Your task to perform on an android device: open wifi settings Image 0: 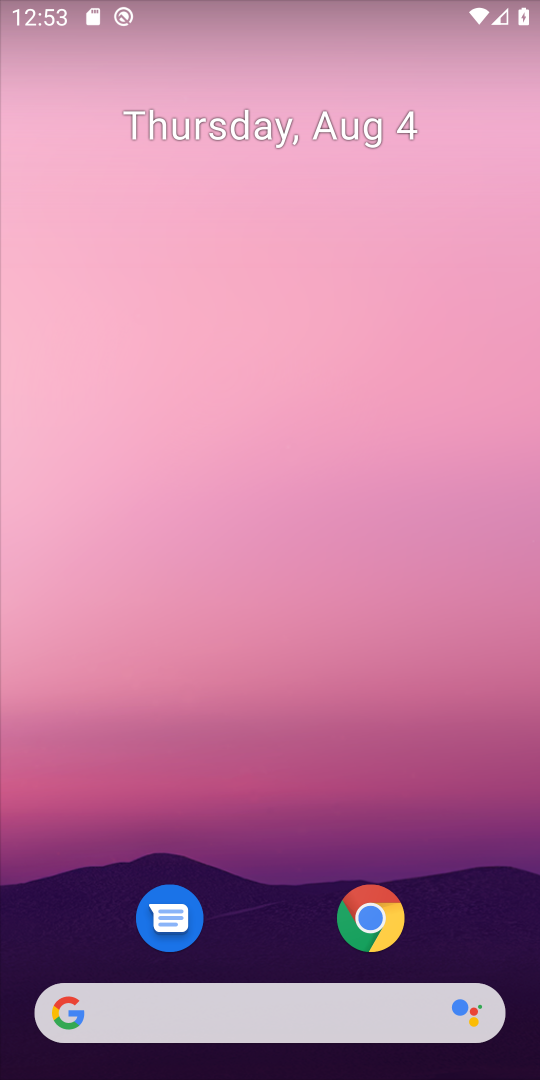
Step 0: drag from (263, 884) to (277, 207)
Your task to perform on an android device: open wifi settings Image 1: 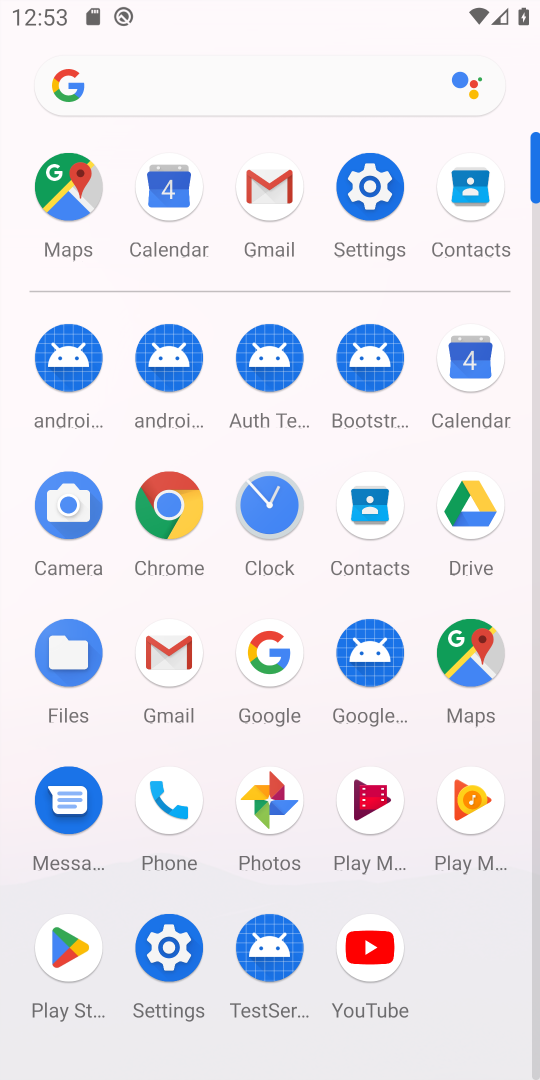
Step 1: click (375, 159)
Your task to perform on an android device: open wifi settings Image 2: 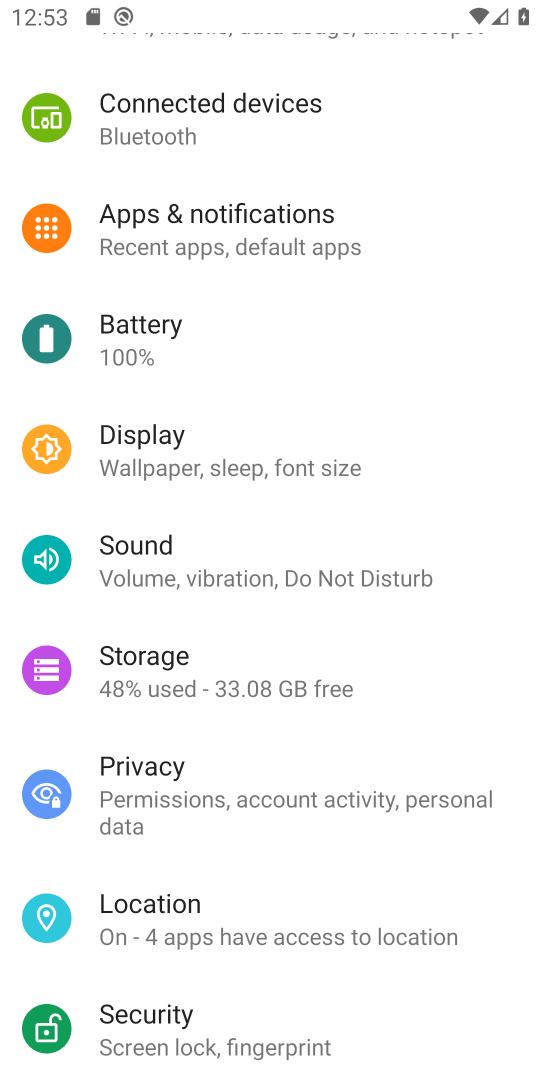
Step 2: drag from (267, 536) to (253, 861)
Your task to perform on an android device: open wifi settings Image 3: 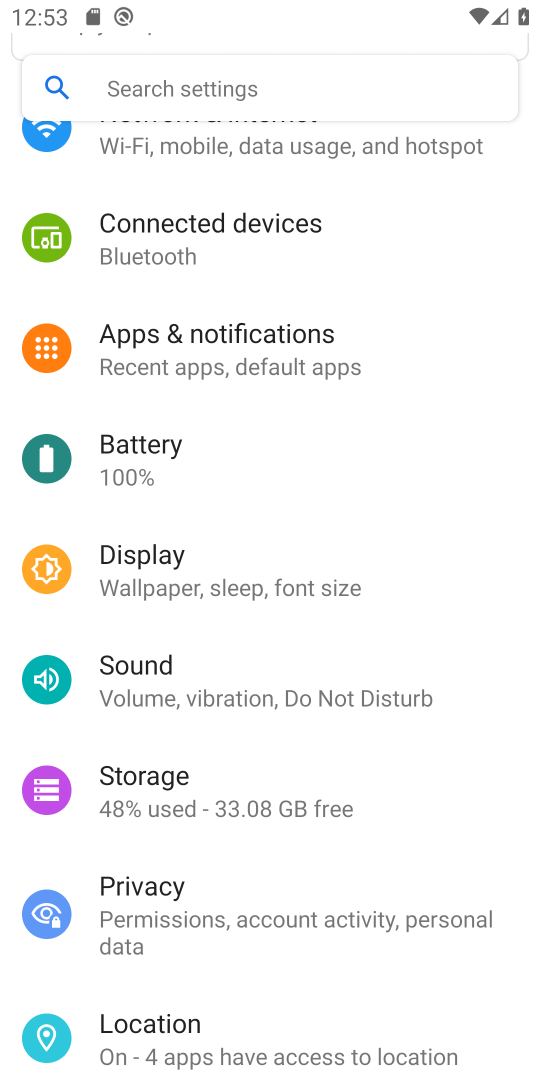
Step 3: drag from (196, 380) to (247, 864)
Your task to perform on an android device: open wifi settings Image 4: 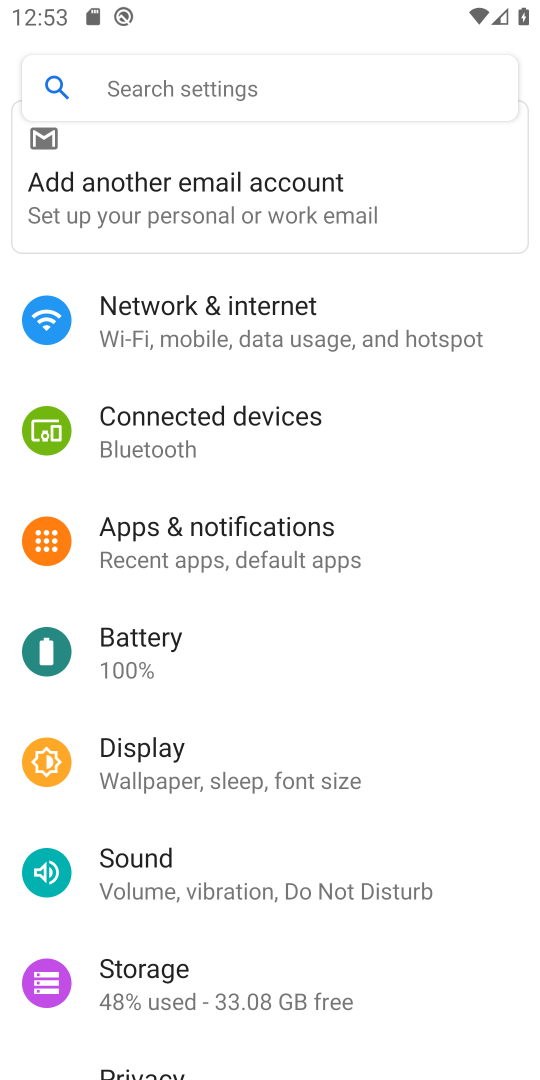
Step 4: click (182, 241)
Your task to perform on an android device: open wifi settings Image 5: 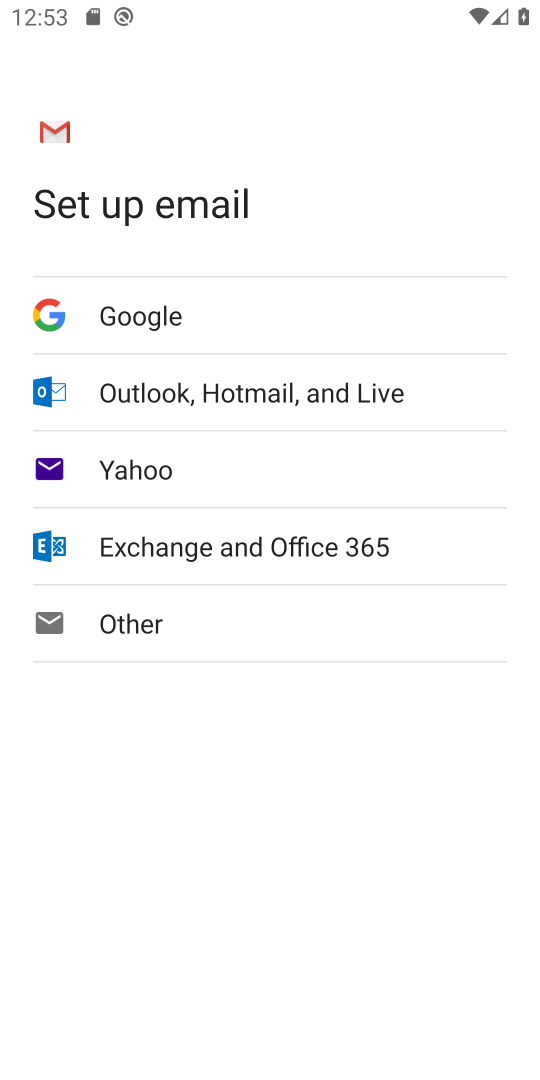
Step 5: press back button
Your task to perform on an android device: open wifi settings Image 6: 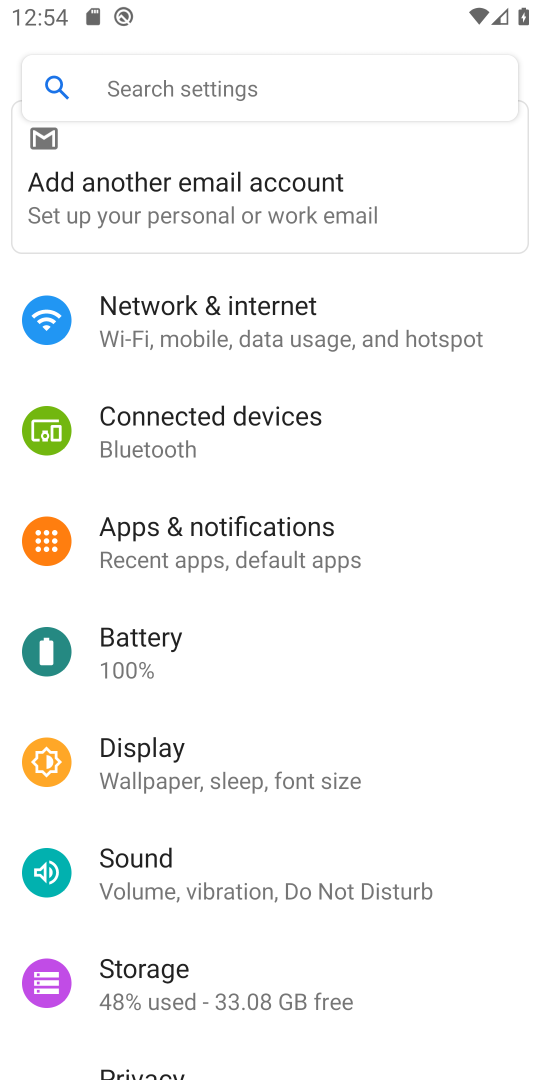
Step 6: click (241, 306)
Your task to perform on an android device: open wifi settings Image 7: 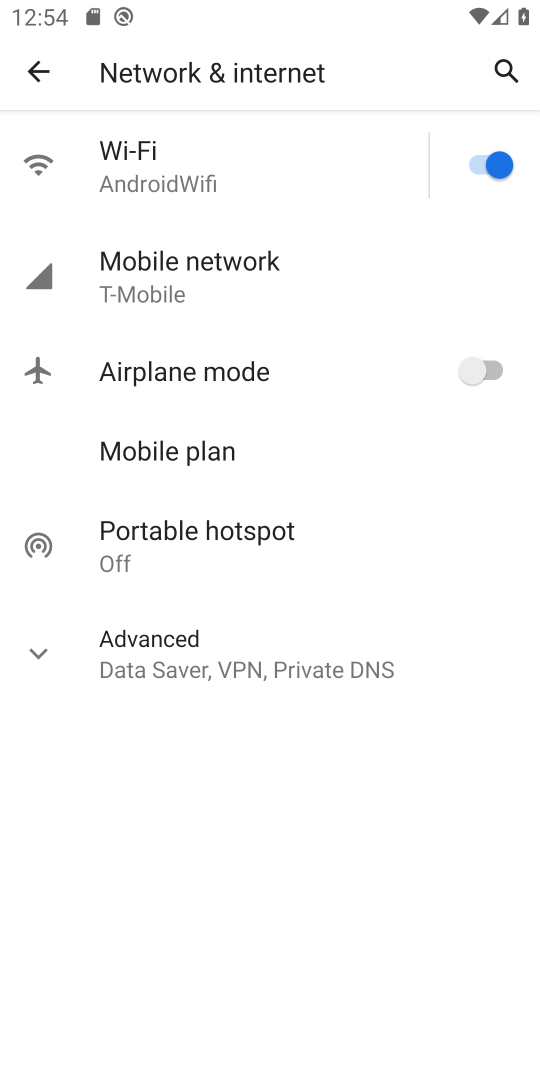
Step 7: click (151, 168)
Your task to perform on an android device: open wifi settings Image 8: 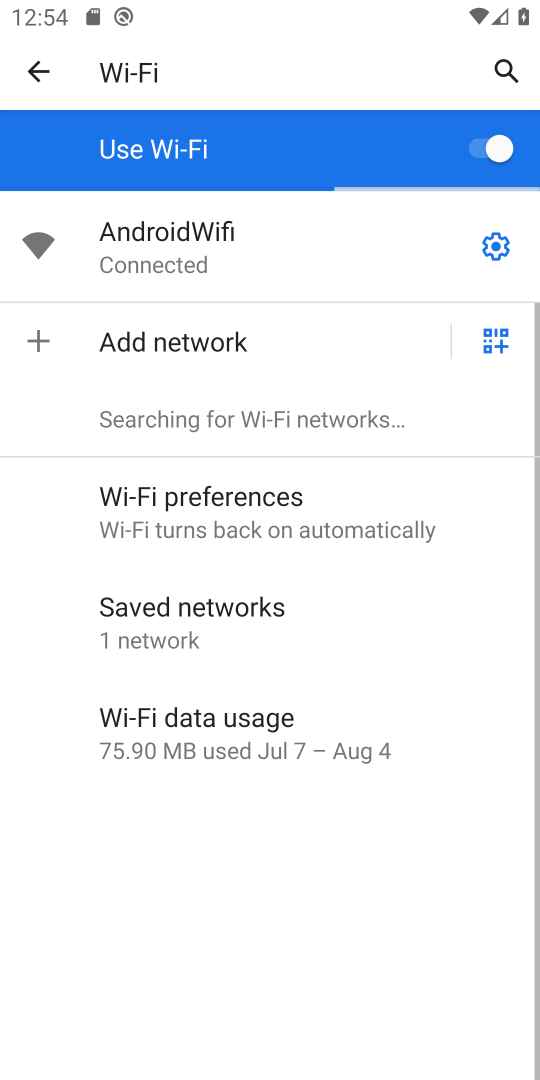
Step 8: task complete